Your task to perform on an android device: Search for pizza restaurants on Maps Image 0: 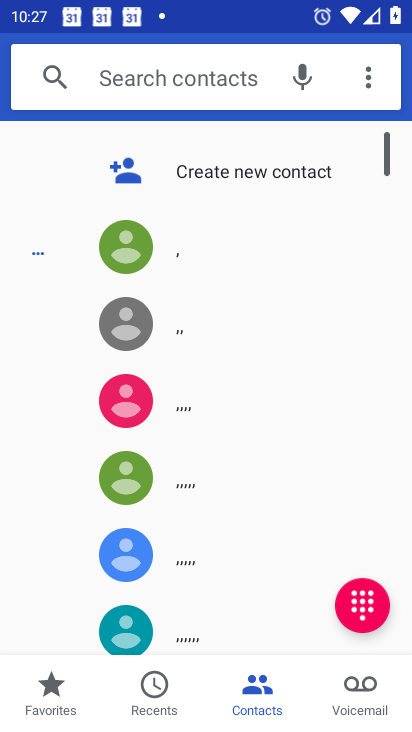
Step 0: press home button
Your task to perform on an android device: Search for pizza restaurants on Maps Image 1: 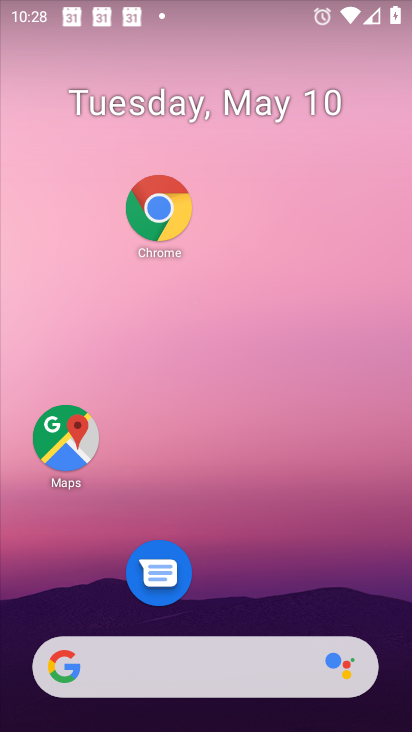
Step 1: drag from (323, 709) to (364, 258)
Your task to perform on an android device: Search for pizza restaurants on Maps Image 2: 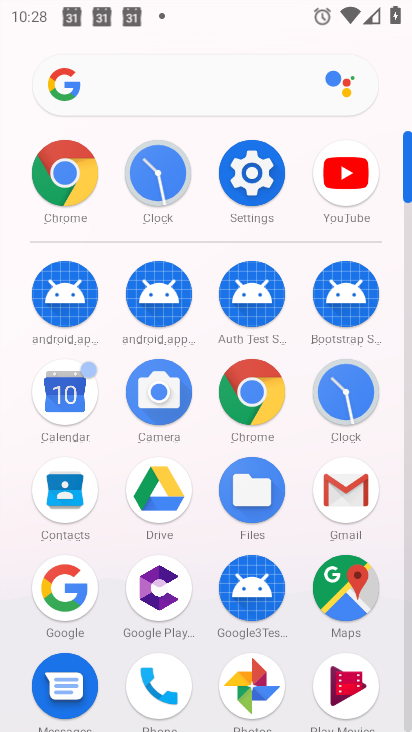
Step 2: click (351, 576)
Your task to perform on an android device: Search for pizza restaurants on Maps Image 3: 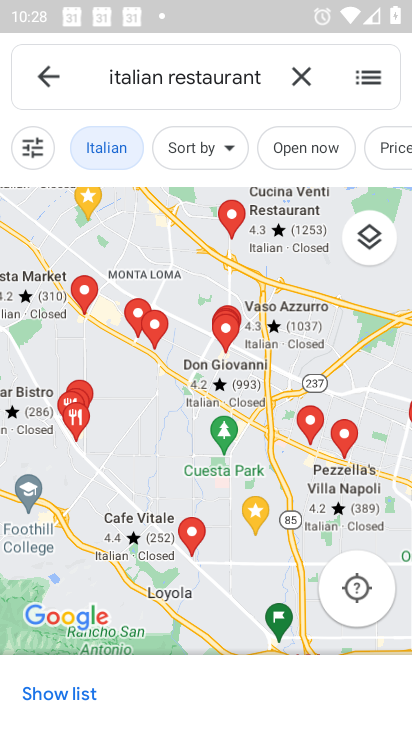
Step 3: click (298, 73)
Your task to perform on an android device: Search for pizza restaurants on Maps Image 4: 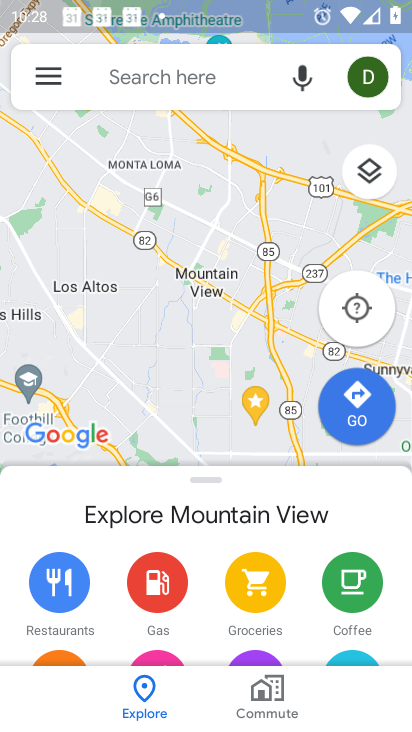
Step 4: click (155, 74)
Your task to perform on an android device: Search for pizza restaurants on Maps Image 5: 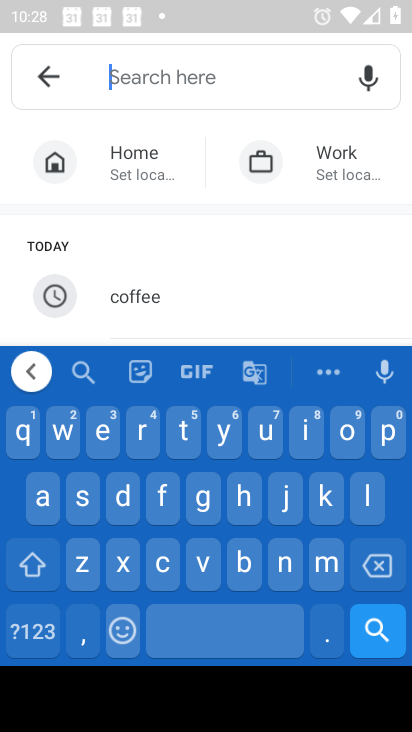
Step 5: click (381, 433)
Your task to perform on an android device: Search for pizza restaurants on Maps Image 6: 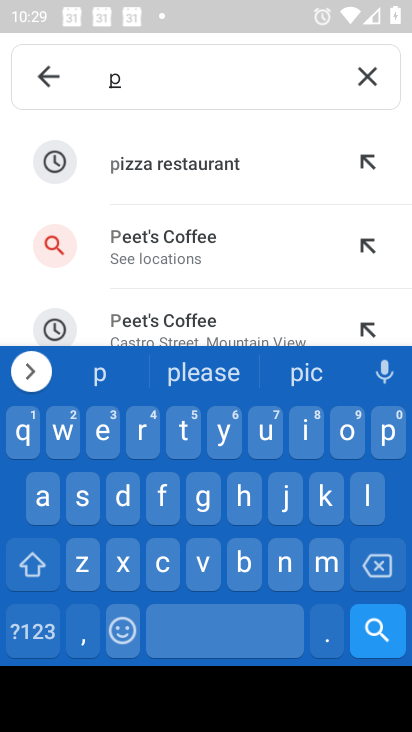
Step 6: click (180, 162)
Your task to perform on an android device: Search for pizza restaurants on Maps Image 7: 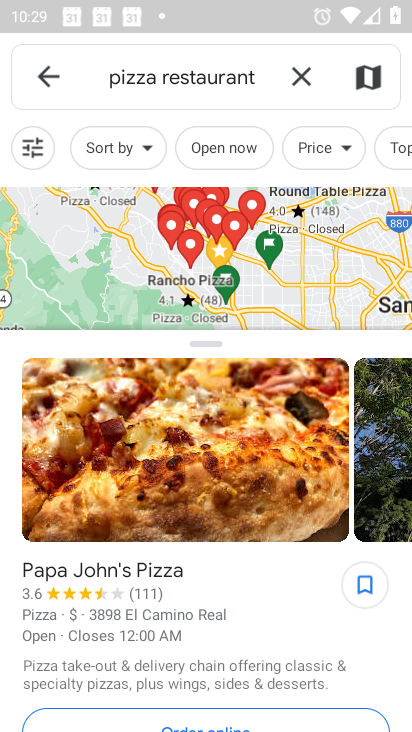
Step 7: click (164, 267)
Your task to perform on an android device: Search for pizza restaurants on Maps Image 8: 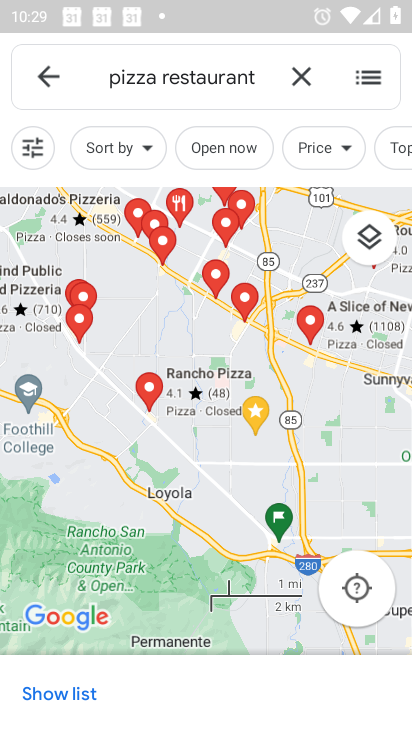
Step 8: task complete